Your task to perform on an android device: change timer sound Image 0: 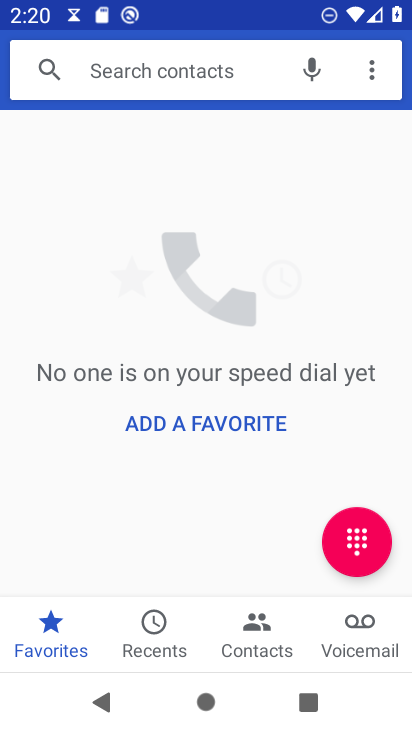
Step 0: press home button
Your task to perform on an android device: change timer sound Image 1: 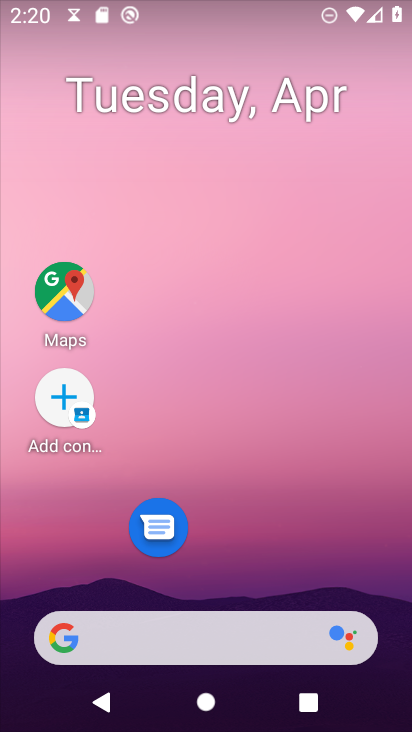
Step 1: drag from (250, 550) to (323, 117)
Your task to perform on an android device: change timer sound Image 2: 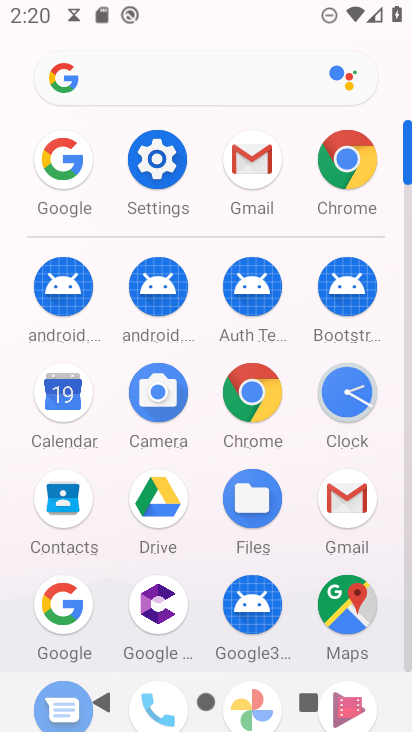
Step 2: click (346, 393)
Your task to perform on an android device: change timer sound Image 3: 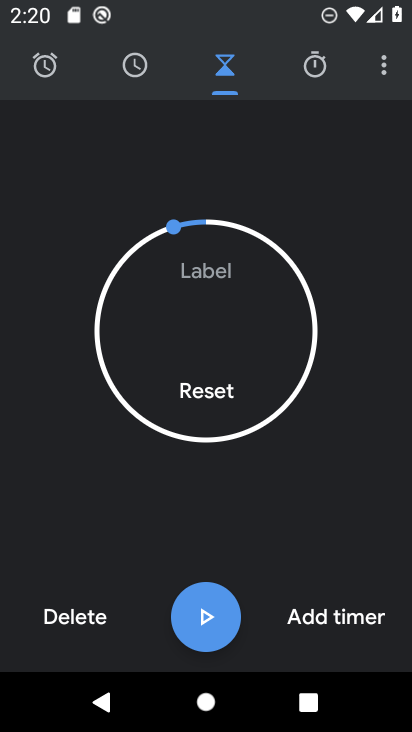
Step 3: click (386, 67)
Your task to perform on an android device: change timer sound Image 4: 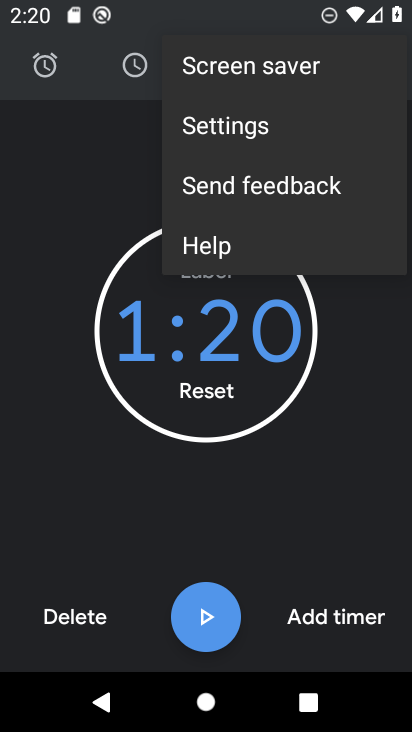
Step 4: click (260, 126)
Your task to perform on an android device: change timer sound Image 5: 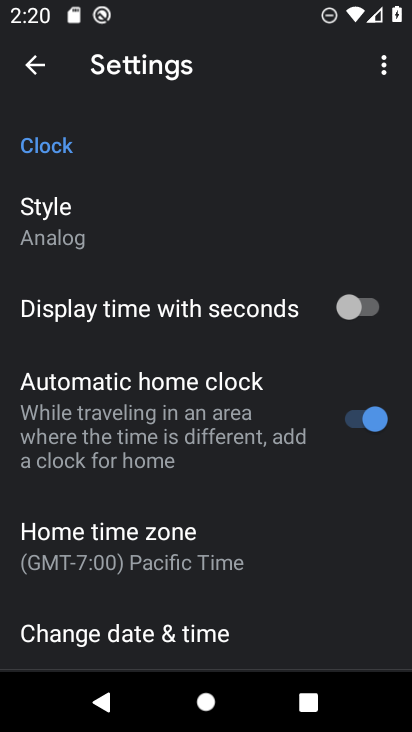
Step 5: drag from (199, 435) to (204, 322)
Your task to perform on an android device: change timer sound Image 6: 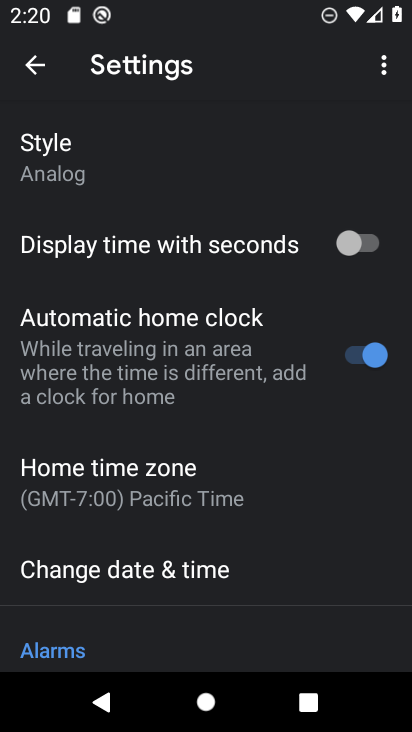
Step 6: drag from (213, 463) to (220, 349)
Your task to perform on an android device: change timer sound Image 7: 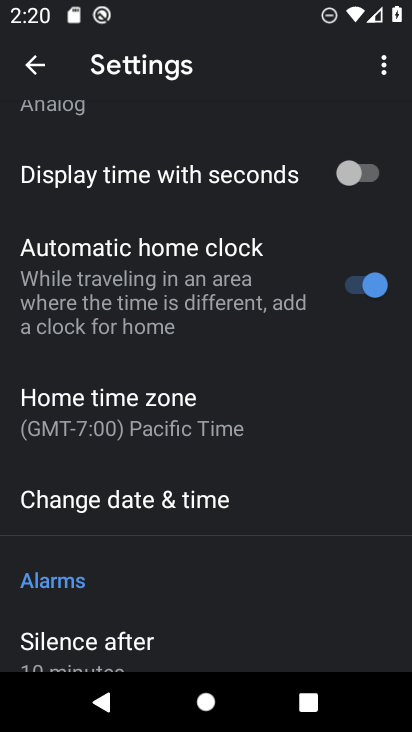
Step 7: drag from (202, 472) to (210, 371)
Your task to perform on an android device: change timer sound Image 8: 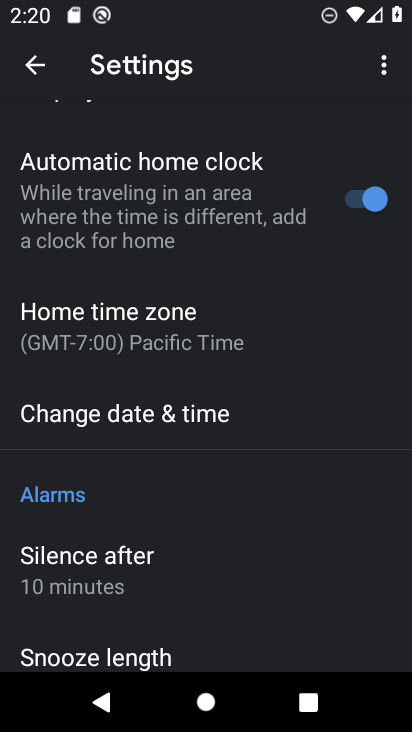
Step 8: drag from (192, 478) to (187, 372)
Your task to perform on an android device: change timer sound Image 9: 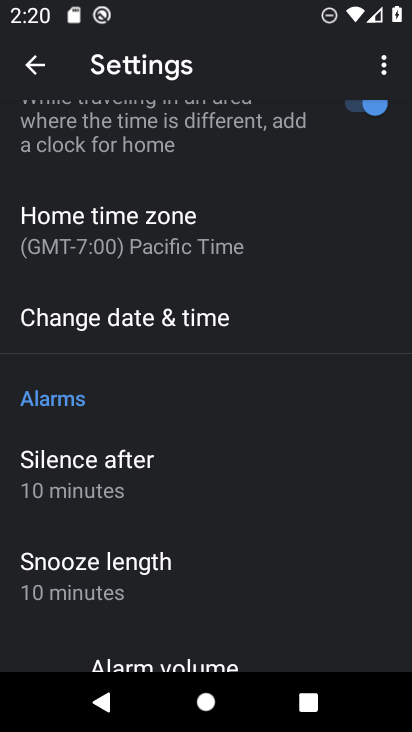
Step 9: drag from (194, 478) to (193, 383)
Your task to perform on an android device: change timer sound Image 10: 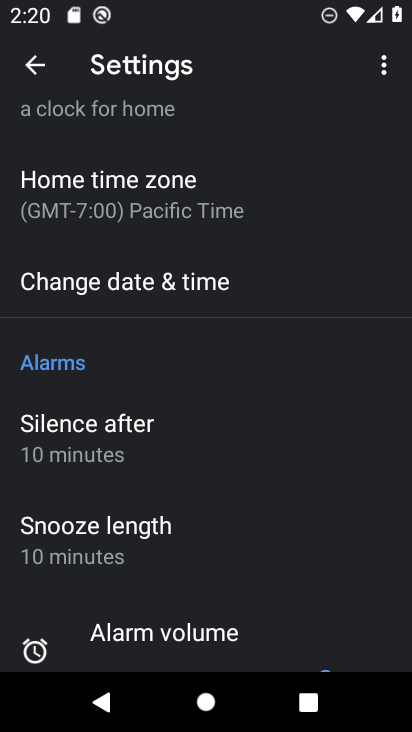
Step 10: drag from (177, 461) to (181, 380)
Your task to perform on an android device: change timer sound Image 11: 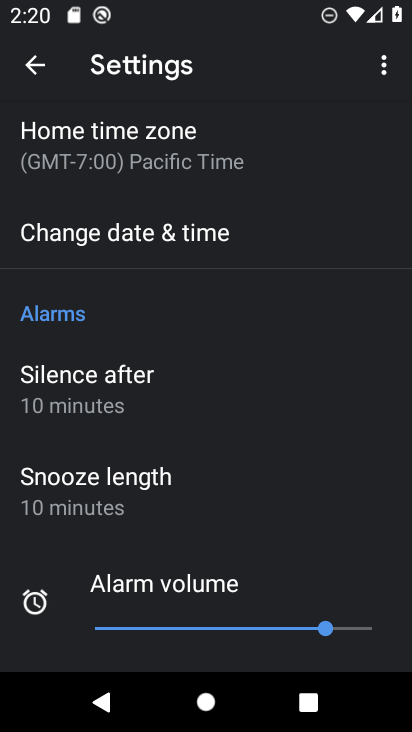
Step 11: drag from (190, 494) to (192, 404)
Your task to perform on an android device: change timer sound Image 12: 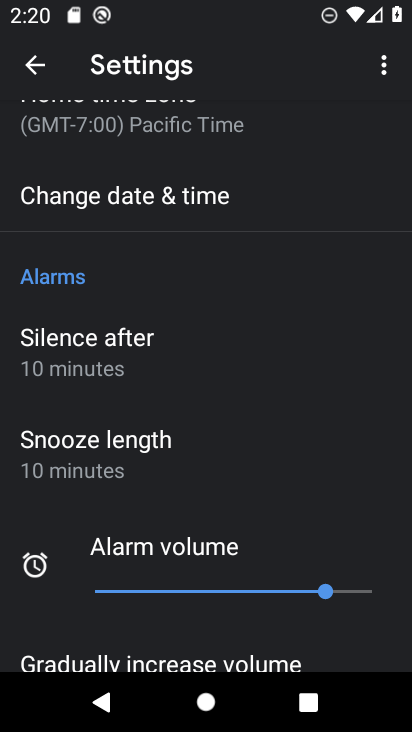
Step 12: drag from (150, 493) to (177, 386)
Your task to perform on an android device: change timer sound Image 13: 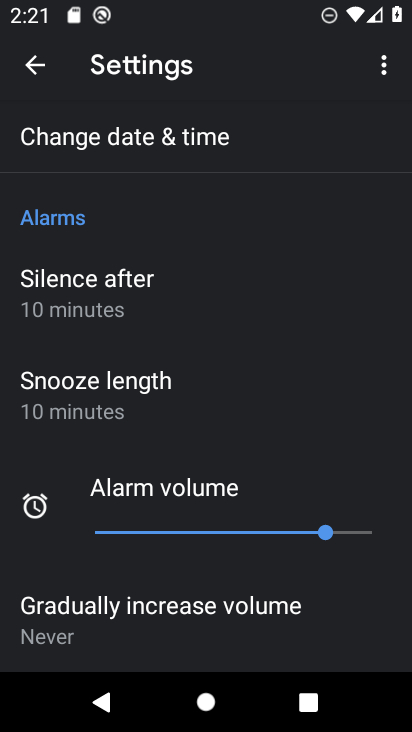
Step 13: drag from (163, 545) to (180, 408)
Your task to perform on an android device: change timer sound Image 14: 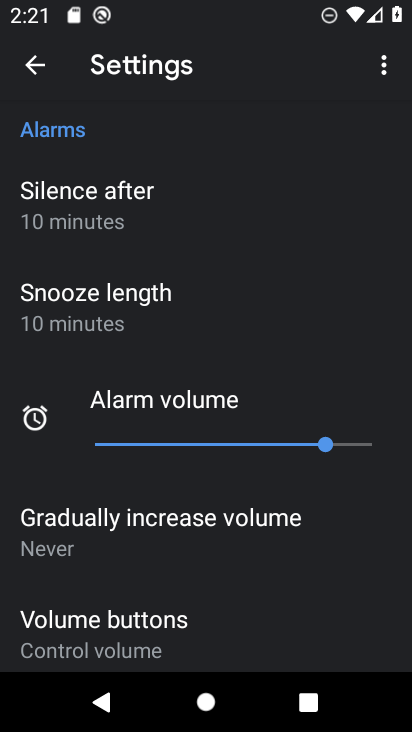
Step 14: drag from (123, 575) to (126, 472)
Your task to perform on an android device: change timer sound Image 15: 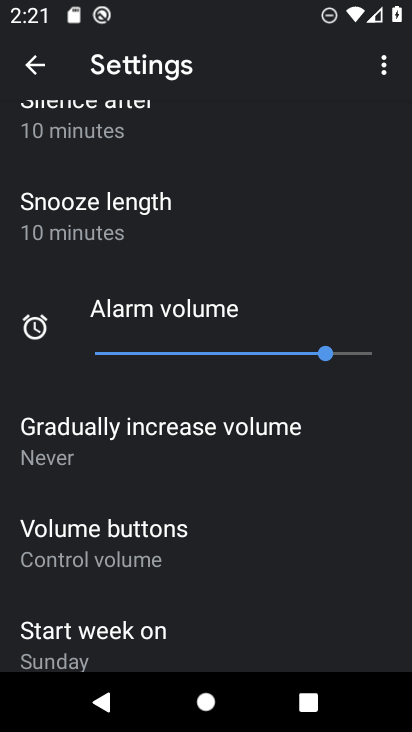
Step 15: drag from (148, 588) to (168, 500)
Your task to perform on an android device: change timer sound Image 16: 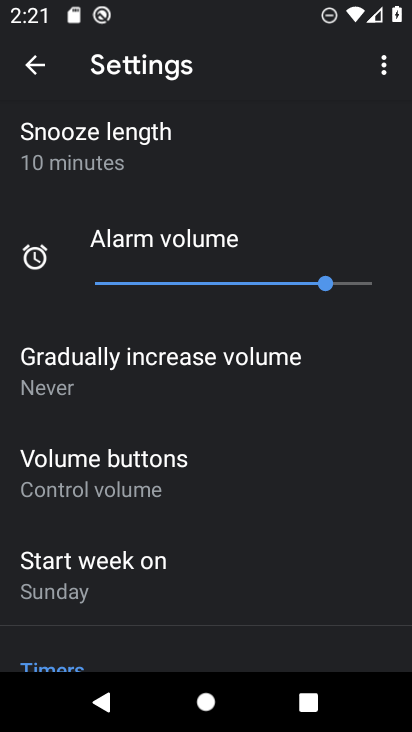
Step 16: drag from (166, 582) to (158, 485)
Your task to perform on an android device: change timer sound Image 17: 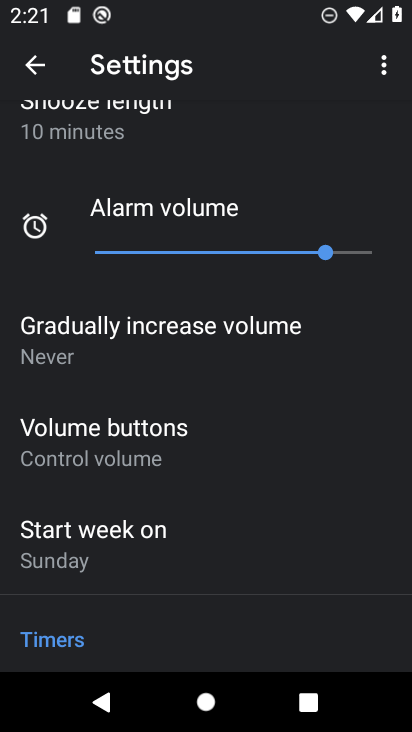
Step 17: drag from (146, 624) to (158, 499)
Your task to perform on an android device: change timer sound Image 18: 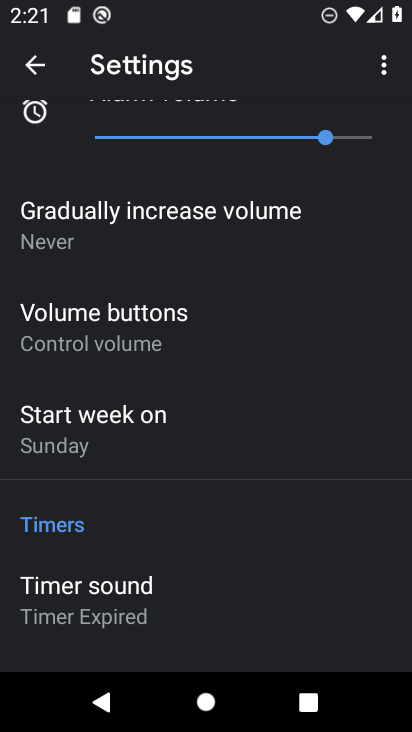
Step 18: drag from (173, 575) to (175, 466)
Your task to perform on an android device: change timer sound Image 19: 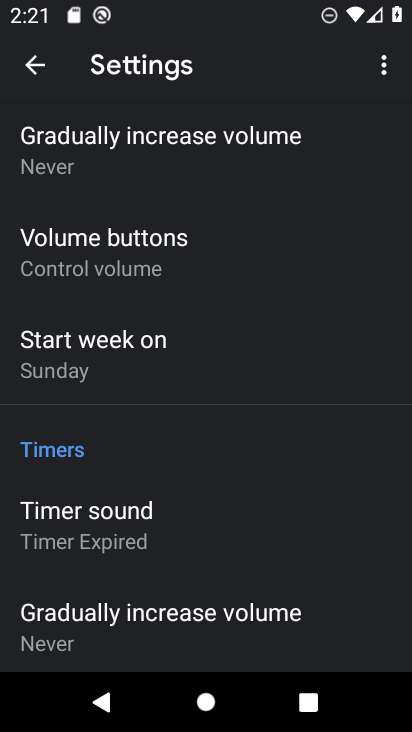
Step 19: click (138, 519)
Your task to perform on an android device: change timer sound Image 20: 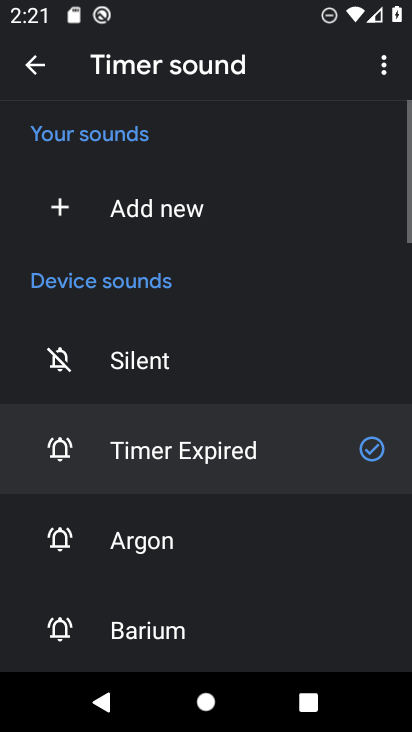
Step 20: drag from (218, 548) to (200, 362)
Your task to perform on an android device: change timer sound Image 21: 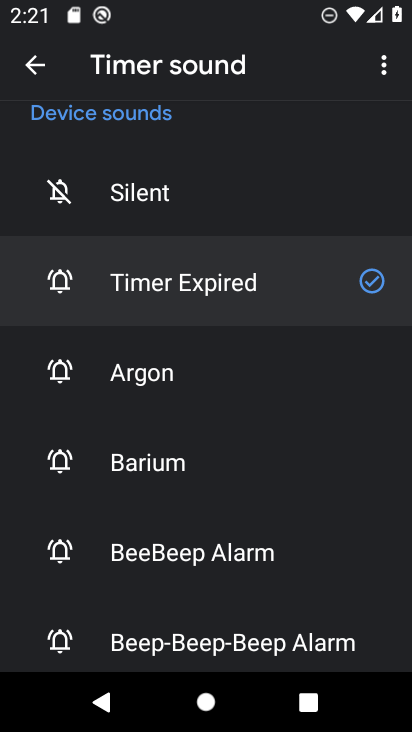
Step 21: click (171, 471)
Your task to perform on an android device: change timer sound Image 22: 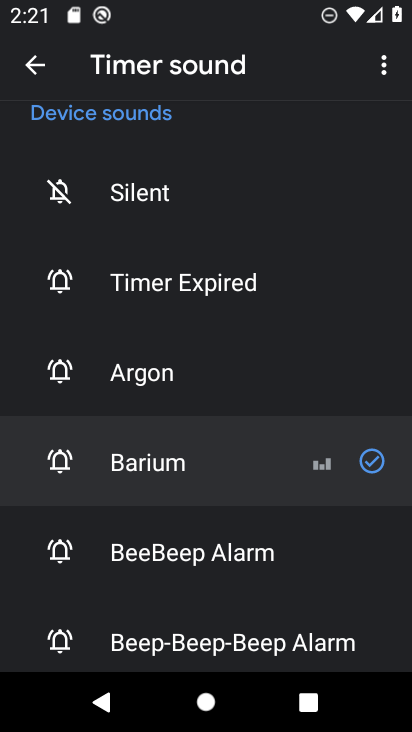
Step 22: task complete